Your task to perform on an android device: Open maps Image 0: 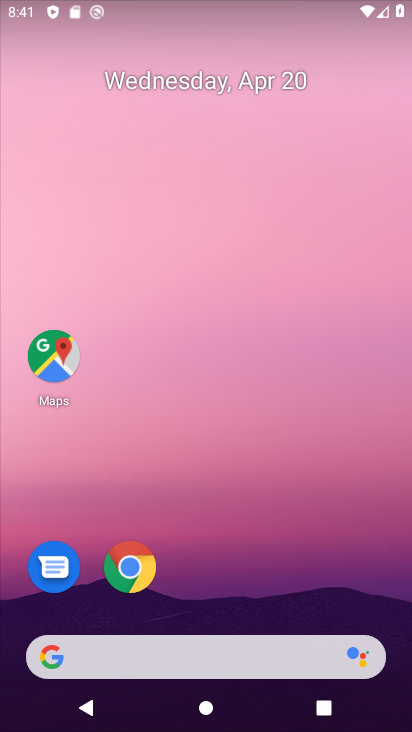
Step 0: click (344, 39)
Your task to perform on an android device: Open maps Image 1: 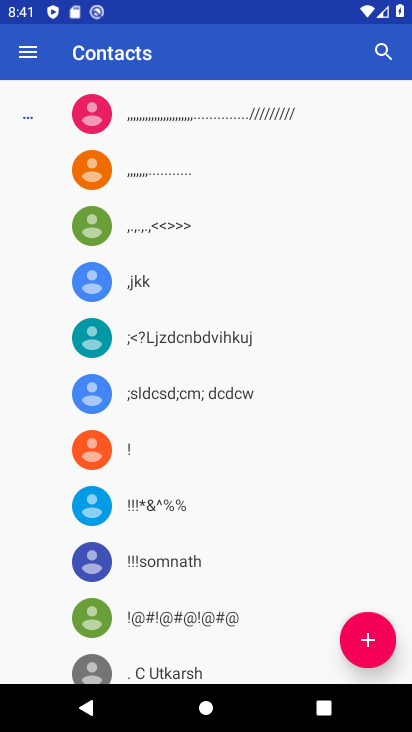
Step 1: press back button
Your task to perform on an android device: Open maps Image 2: 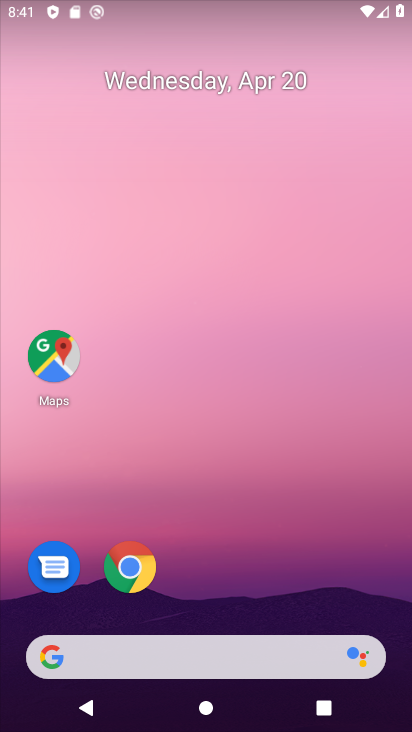
Step 2: drag from (230, 471) to (339, 22)
Your task to perform on an android device: Open maps Image 3: 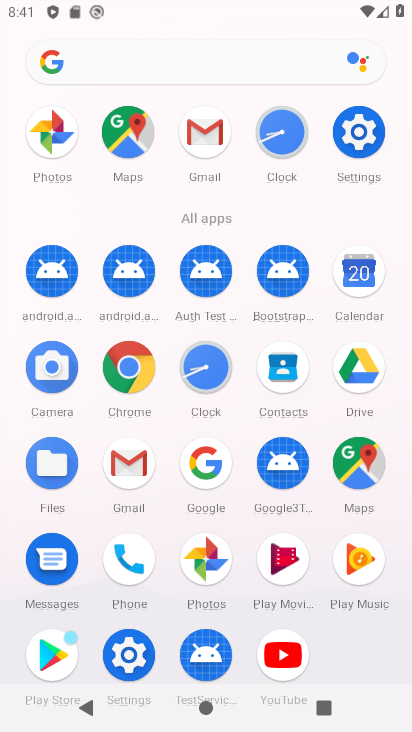
Step 3: click (380, 461)
Your task to perform on an android device: Open maps Image 4: 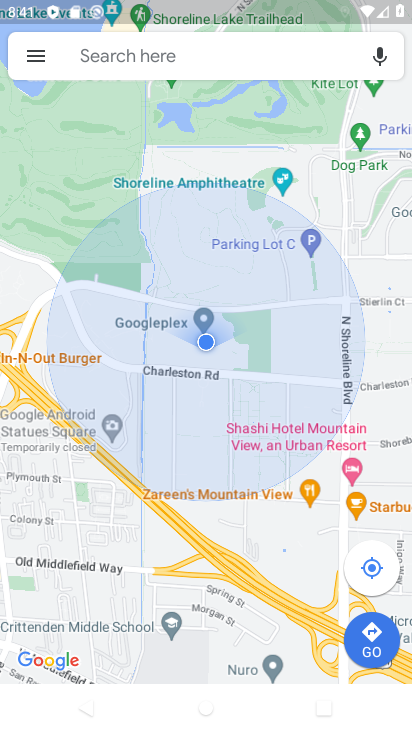
Step 4: task complete